Your task to perform on an android device: change text size in settings app Image 0: 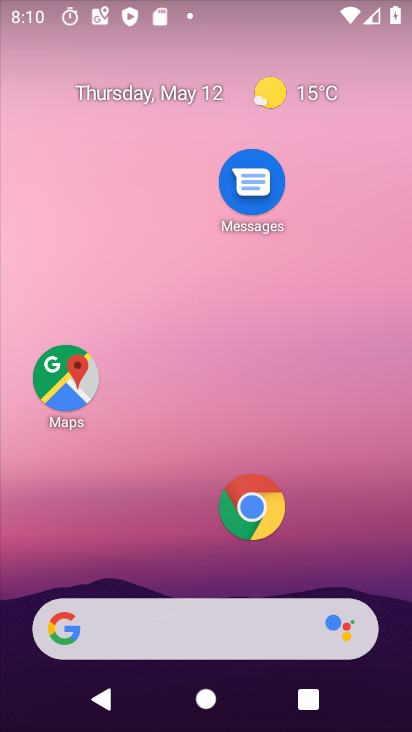
Step 0: drag from (187, 572) to (266, 95)
Your task to perform on an android device: change text size in settings app Image 1: 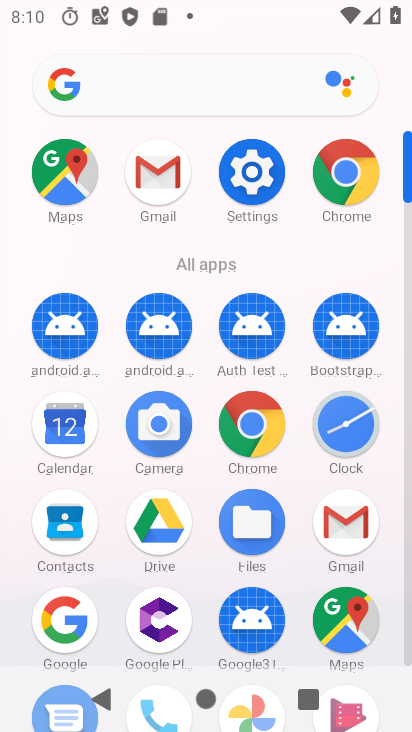
Step 1: click (233, 182)
Your task to perform on an android device: change text size in settings app Image 2: 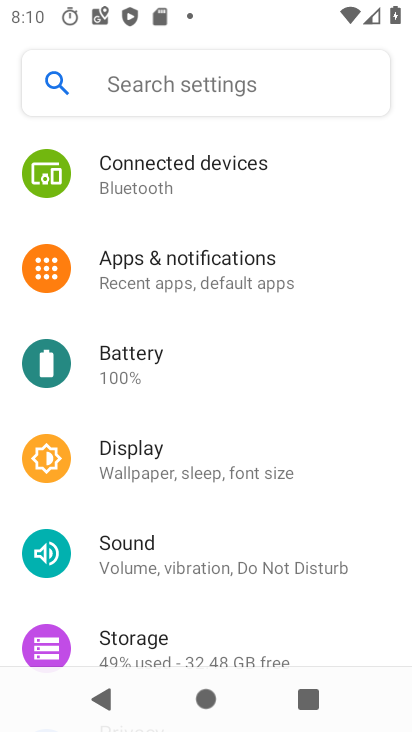
Step 2: click (230, 458)
Your task to perform on an android device: change text size in settings app Image 3: 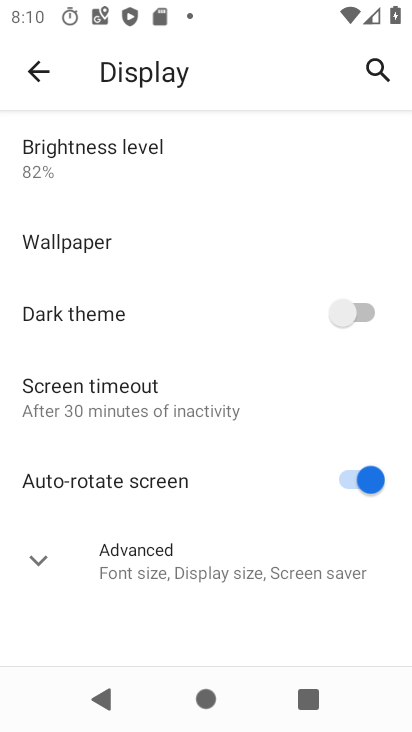
Step 3: click (215, 572)
Your task to perform on an android device: change text size in settings app Image 4: 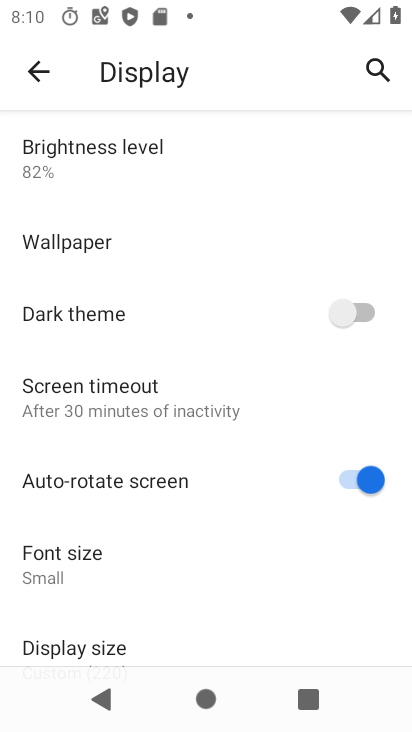
Step 4: click (102, 556)
Your task to perform on an android device: change text size in settings app Image 5: 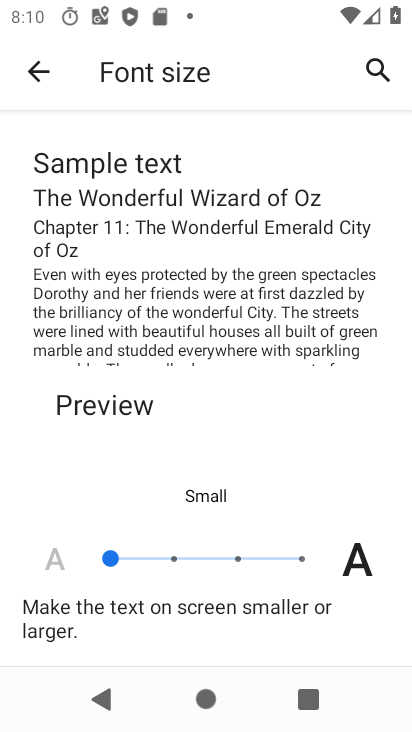
Step 5: click (229, 560)
Your task to perform on an android device: change text size in settings app Image 6: 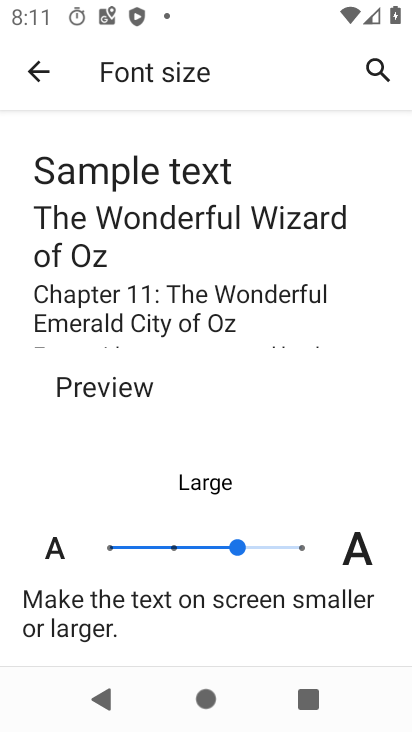
Step 6: task complete